Your task to perform on an android device: create a new album in the google photos Image 0: 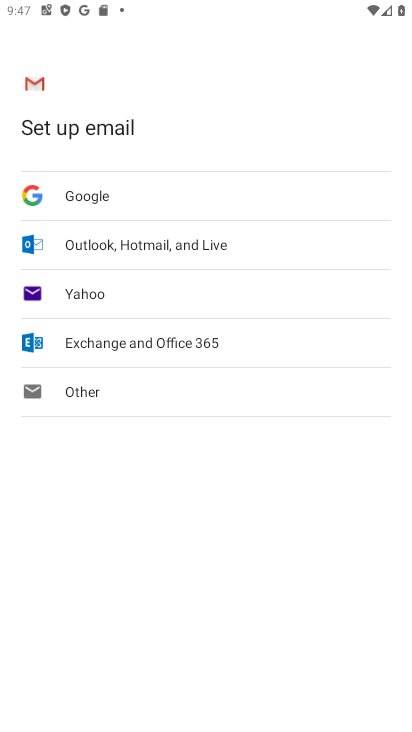
Step 0: press home button
Your task to perform on an android device: create a new album in the google photos Image 1: 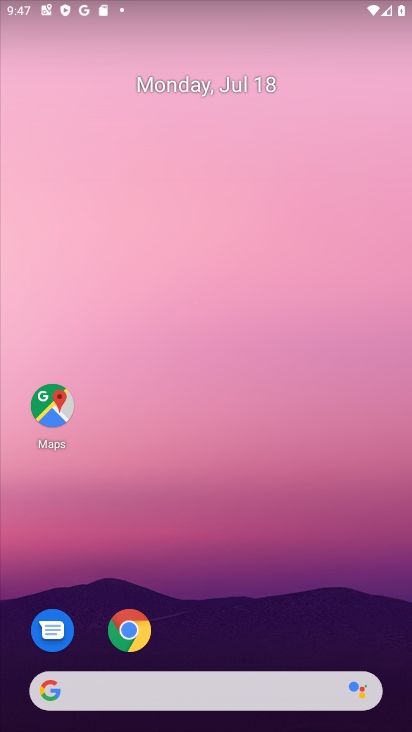
Step 1: drag from (369, 625) to (183, 57)
Your task to perform on an android device: create a new album in the google photos Image 2: 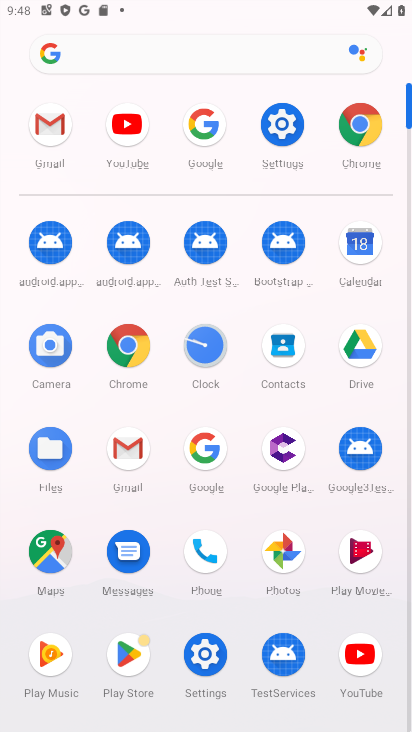
Step 2: click (290, 567)
Your task to perform on an android device: create a new album in the google photos Image 3: 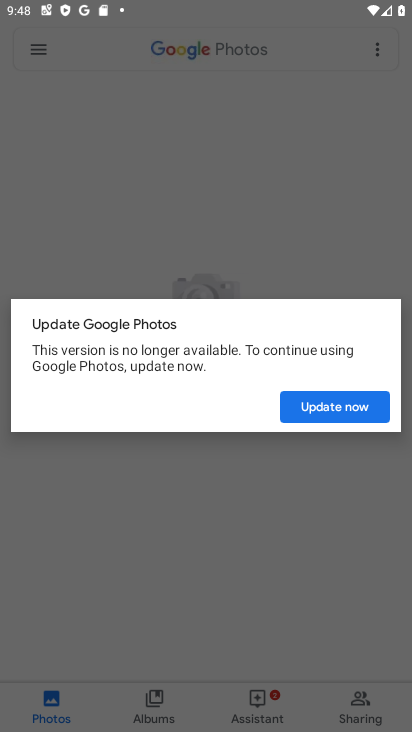
Step 3: click (351, 416)
Your task to perform on an android device: create a new album in the google photos Image 4: 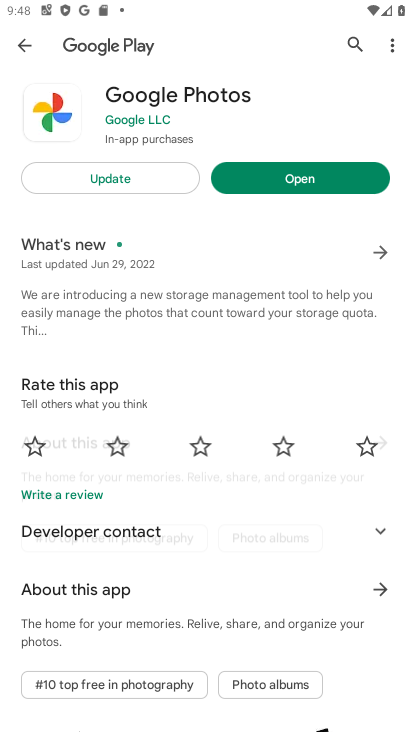
Step 4: click (99, 180)
Your task to perform on an android device: create a new album in the google photos Image 5: 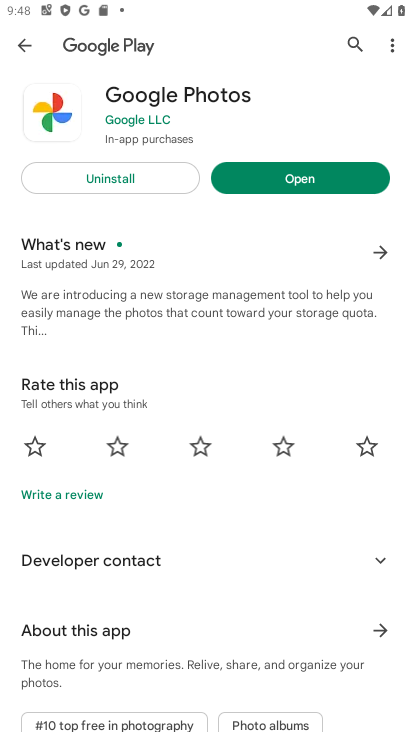
Step 5: click (319, 171)
Your task to perform on an android device: create a new album in the google photos Image 6: 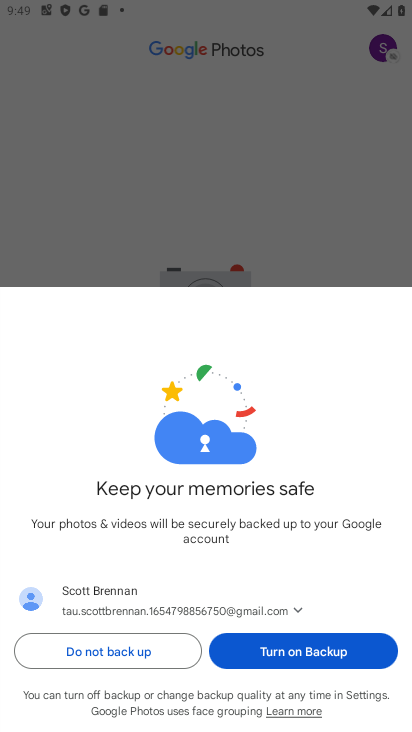
Step 6: click (319, 651)
Your task to perform on an android device: create a new album in the google photos Image 7: 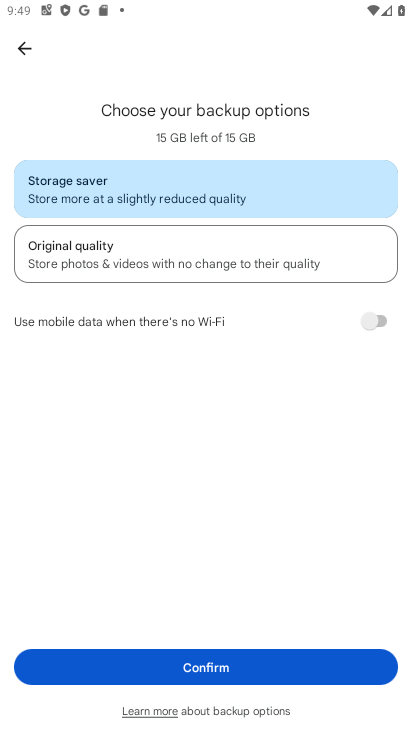
Step 7: click (209, 666)
Your task to perform on an android device: create a new album in the google photos Image 8: 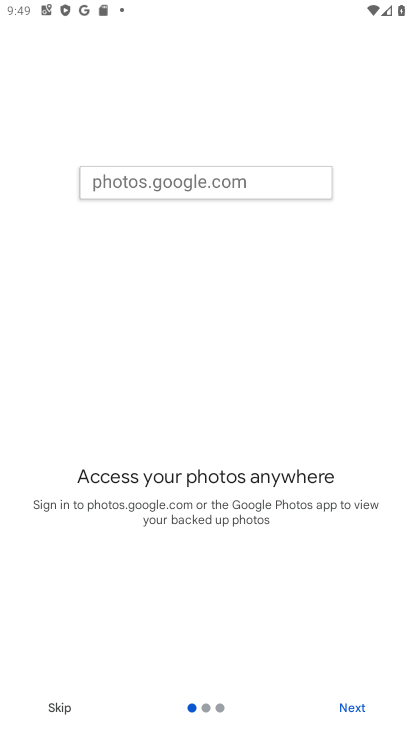
Step 8: click (352, 713)
Your task to perform on an android device: create a new album in the google photos Image 9: 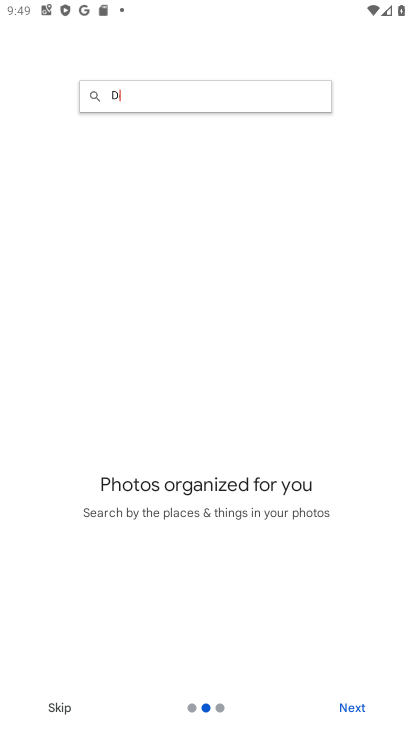
Step 9: click (352, 713)
Your task to perform on an android device: create a new album in the google photos Image 10: 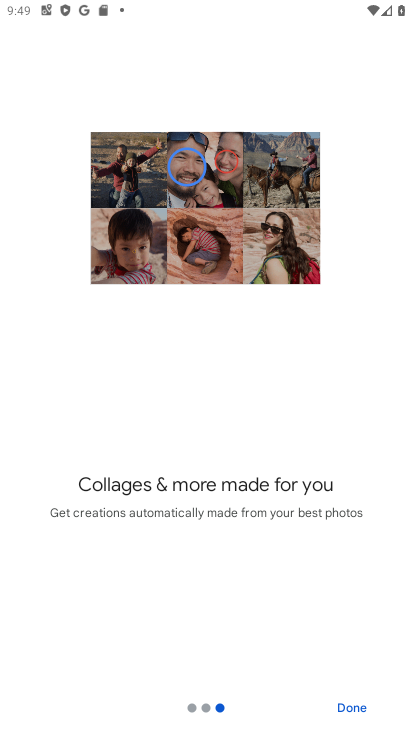
Step 10: click (352, 713)
Your task to perform on an android device: create a new album in the google photos Image 11: 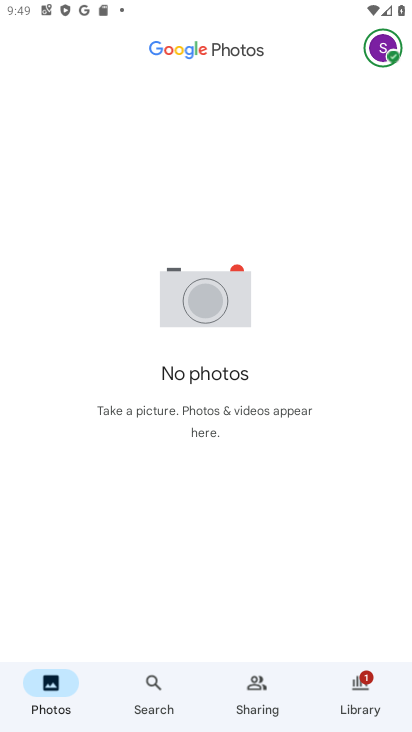
Step 11: task complete